Your task to perform on an android device: Go to Google Image 0: 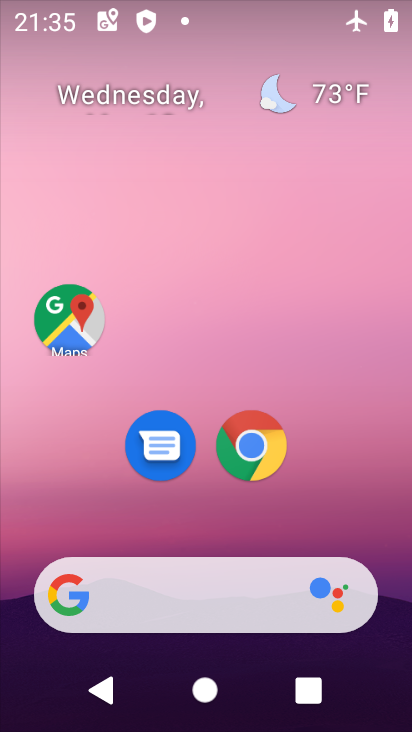
Step 0: drag from (341, 523) to (327, 220)
Your task to perform on an android device: Go to Google Image 1: 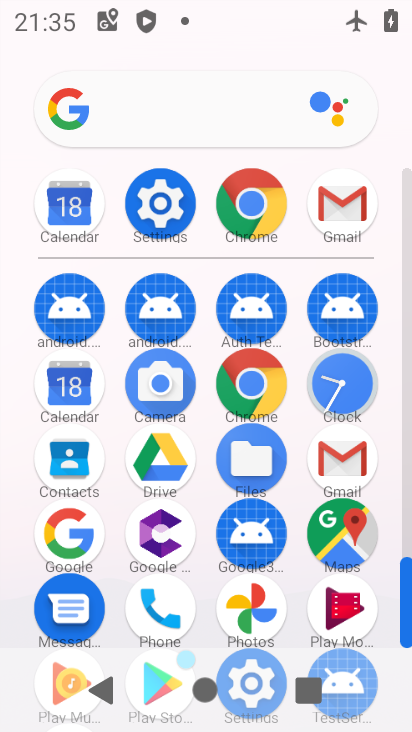
Step 1: click (61, 528)
Your task to perform on an android device: Go to Google Image 2: 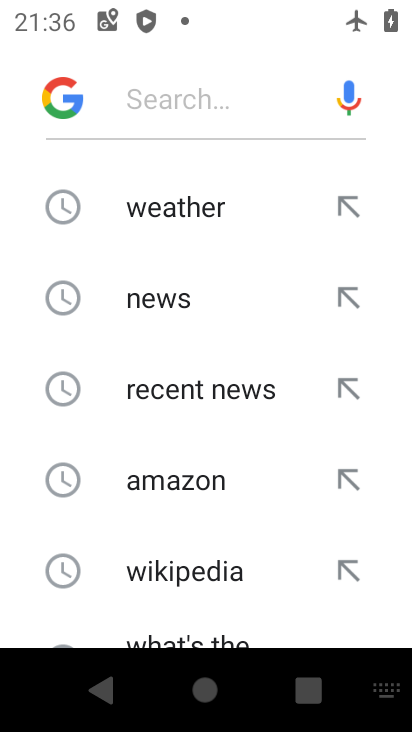
Step 2: task complete